Your task to perform on an android device: install app "Pandora - Music & Podcasts" Image 0: 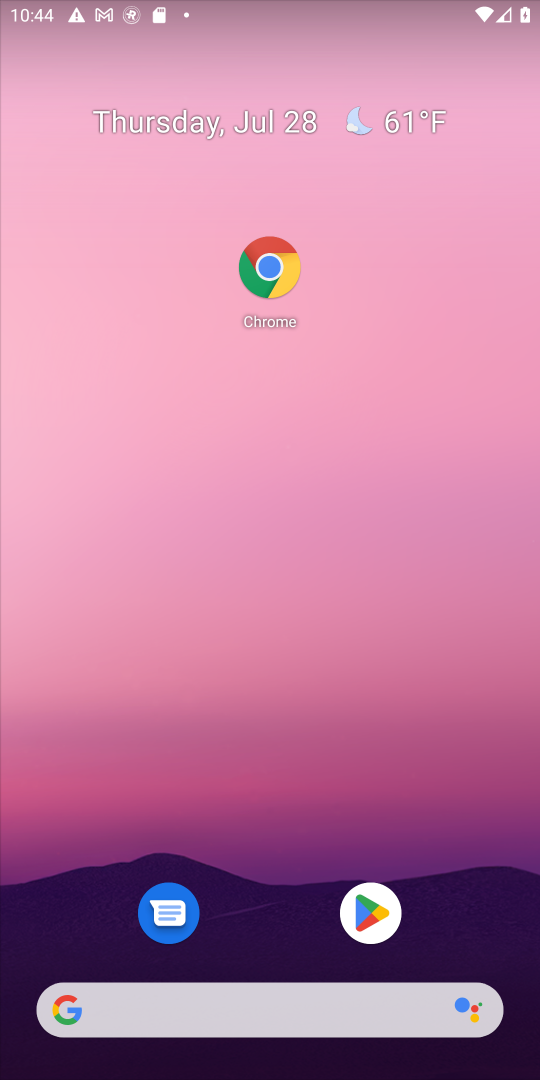
Step 0: click (375, 912)
Your task to perform on an android device: install app "Pandora - Music & Podcasts" Image 1: 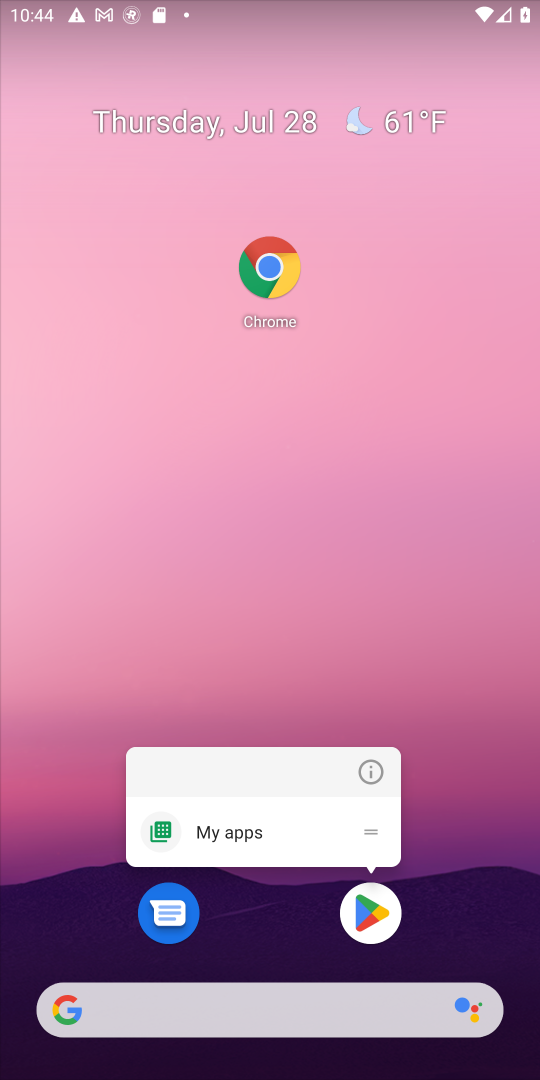
Step 1: click (369, 920)
Your task to perform on an android device: install app "Pandora - Music & Podcasts" Image 2: 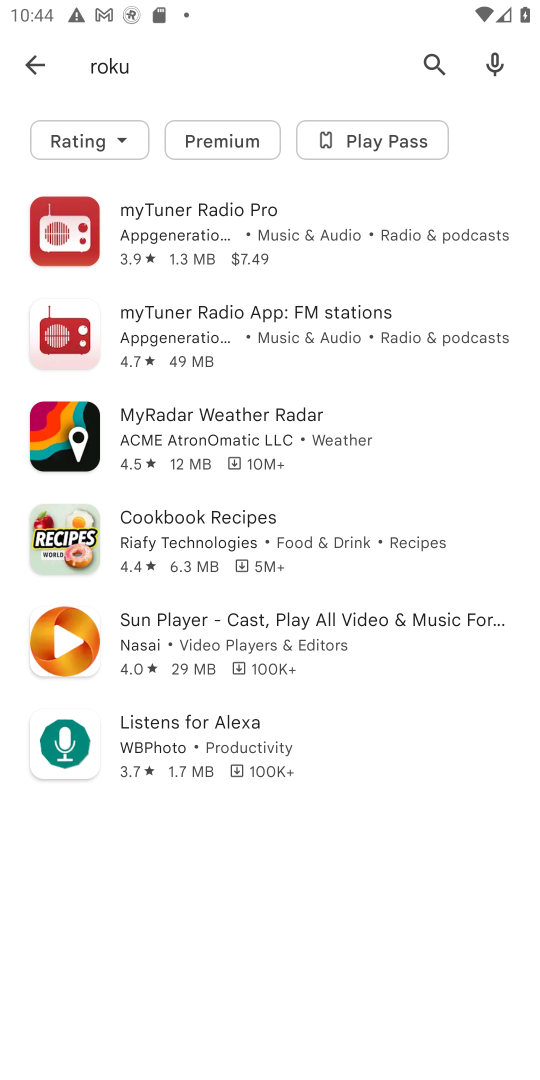
Step 2: click (422, 66)
Your task to perform on an android device: install app "Pandora - Music & Podcasts" Image 3: 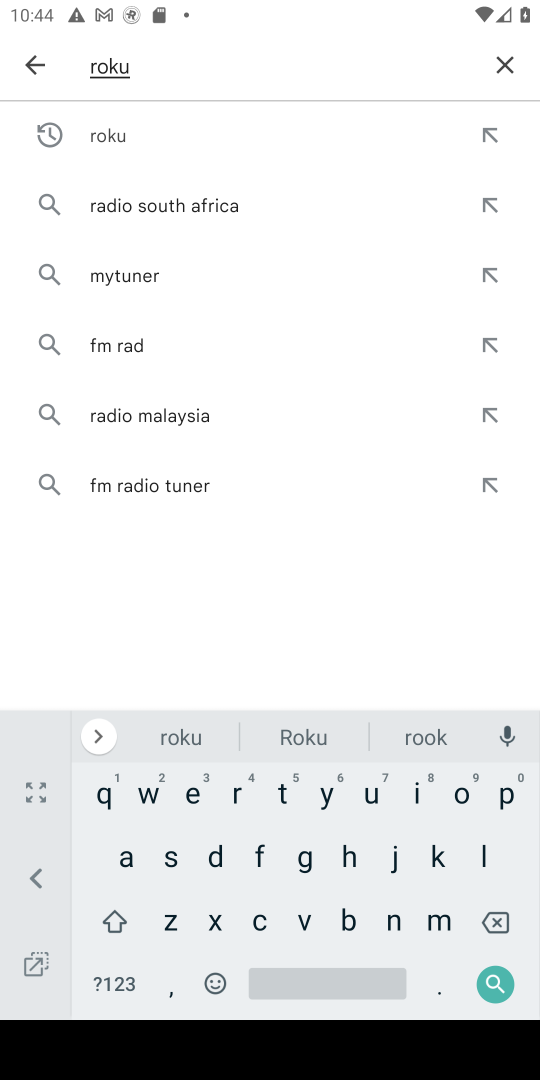
Step 3: click (509, 60)
Your task to perform on an android device: install app "Pandora - Music & Podcasts" Image 4: 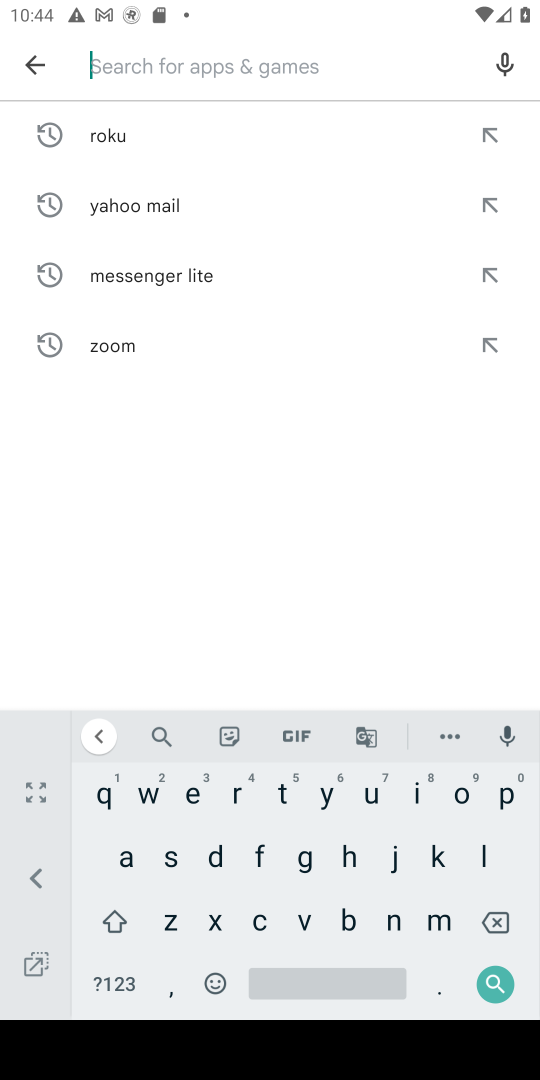
Step 4: click (502, 791)
Your task to perform on an android device: install app "Pandora - Music & Podcasts" Image 5: 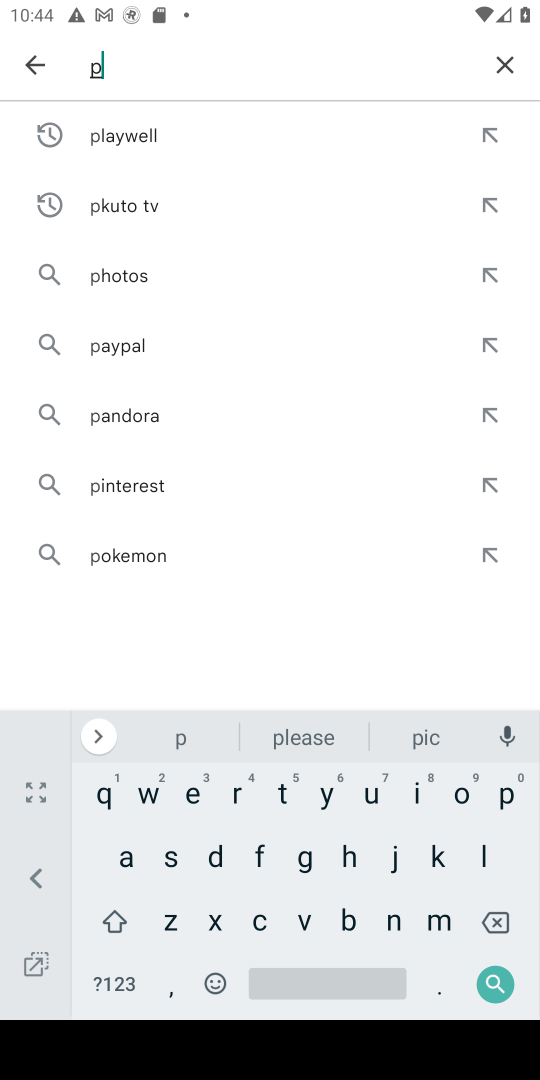
Step 5: click (117, 853)
Your task to perform on an android device: install app "Pandora - Music & Podcasts" Image 6: 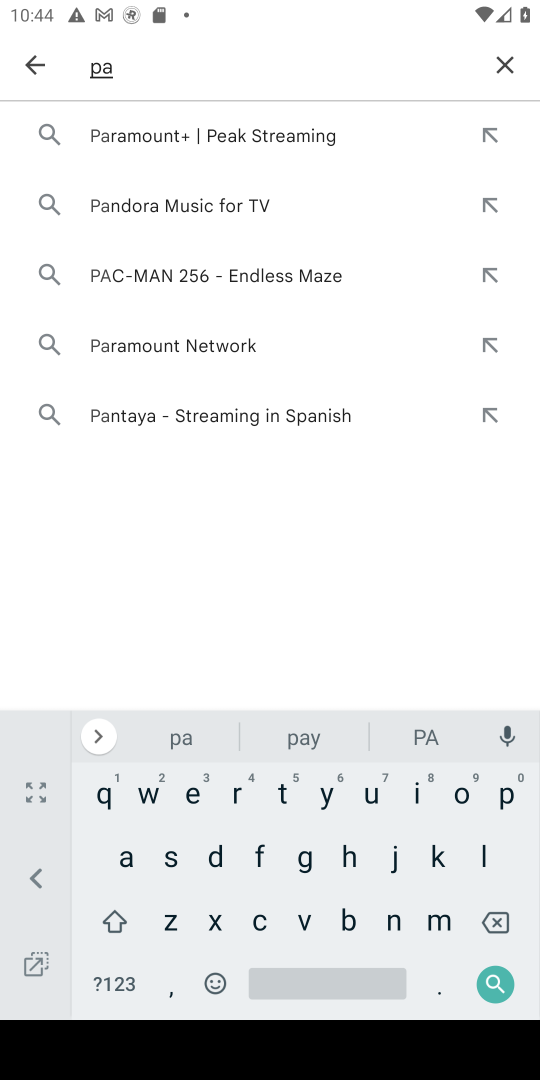
Step 6: click (182, 216)
Your task to perform on an android device: install app "Pandora - Music & Podcasts" Image 7: 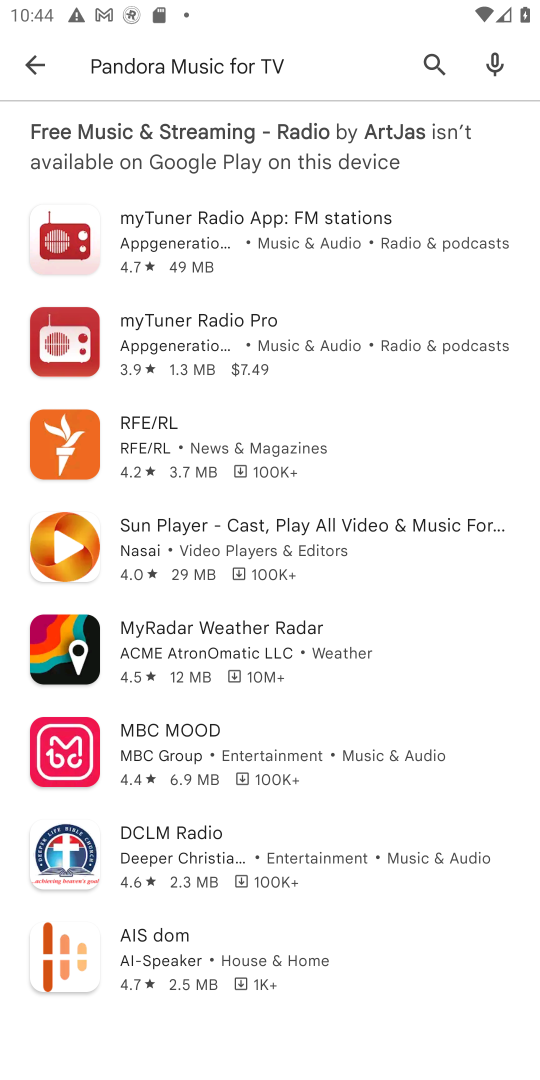
Step 7: click (33, 794)
Your task to perform on an android device: install app "Pandora - Music & Podcasts" Image 8: 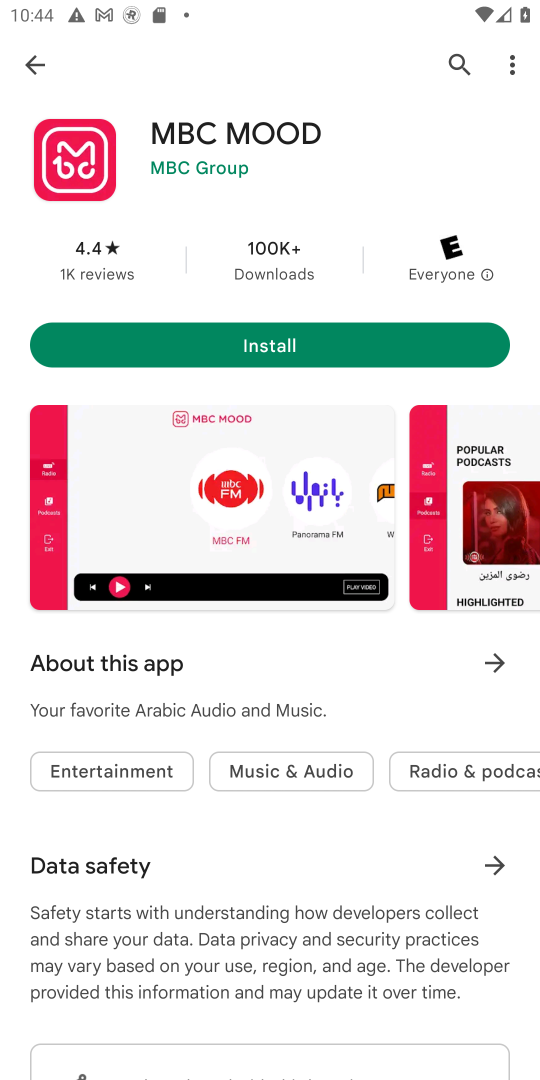
Step 8: click (34, 63)
Your task to perform on an android device: install app "Pandora - Music & Podcasts" Image 9: 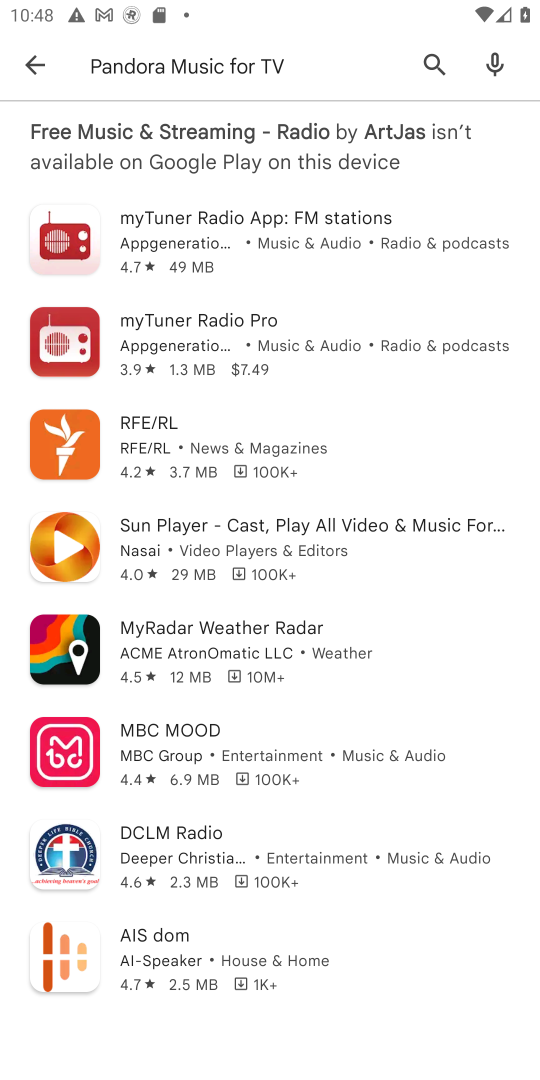
Step 9: task complete